Your task to perform on an android device: Show me recent news Image 0: 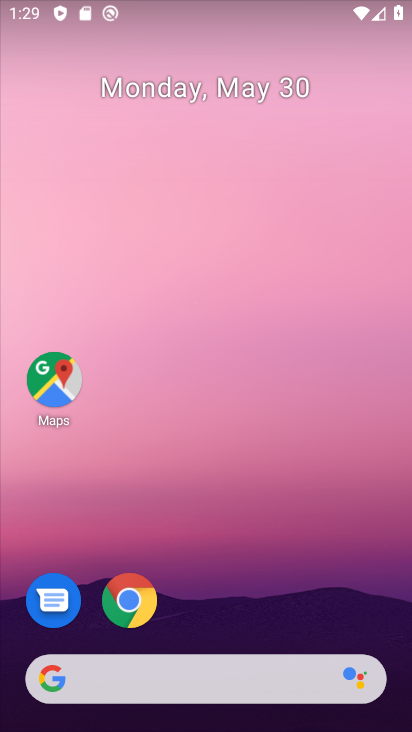
Step 0: click (194, 665)
Your task to perform on an android device: Show me recent news Image 1: 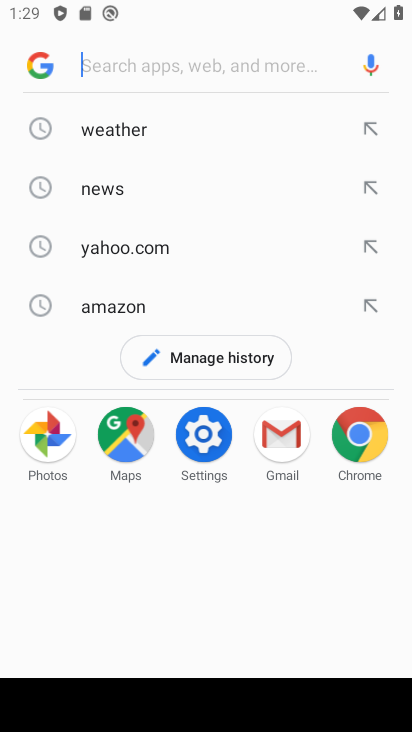
Step 1: click (113, 208)
Your task to perform on an android device: Show me recent news Image 2: 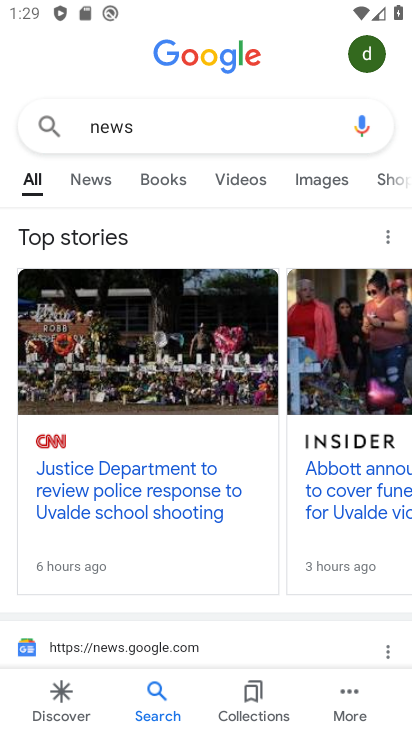
Step 2: click (46, 192)
Your task to perform on an android device: Show me recent news Image 3: 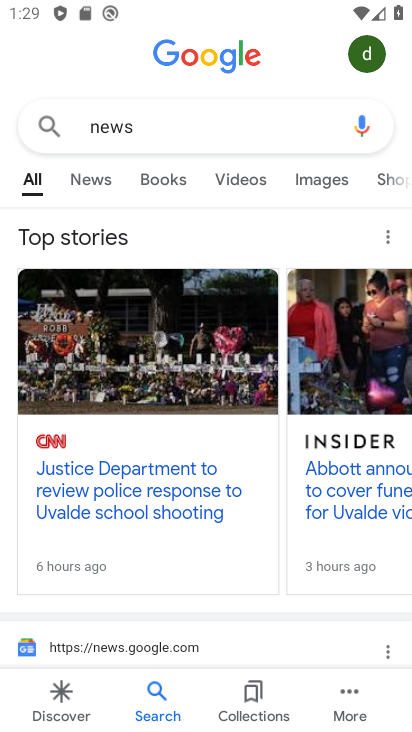
Step 3: click (82, 182)
Your task to perform on an android device: Show me recent news Image 4: 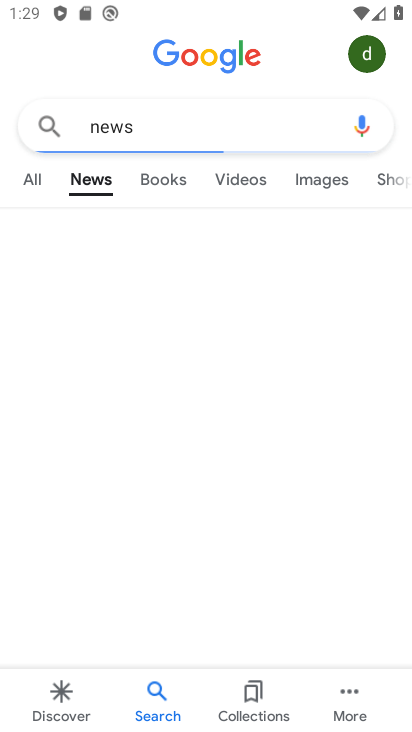
Step 4: task complete